Your task to perform on an android device: Show me the alarms in the clock app Image 0: 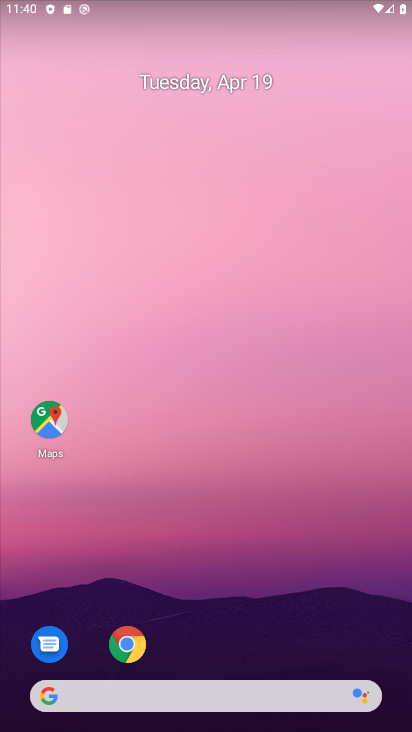
Step 0: drag from (329, 604) to (365, 50)
Your task to perform on an android device: Show me the alarms in the clock app Image 1: 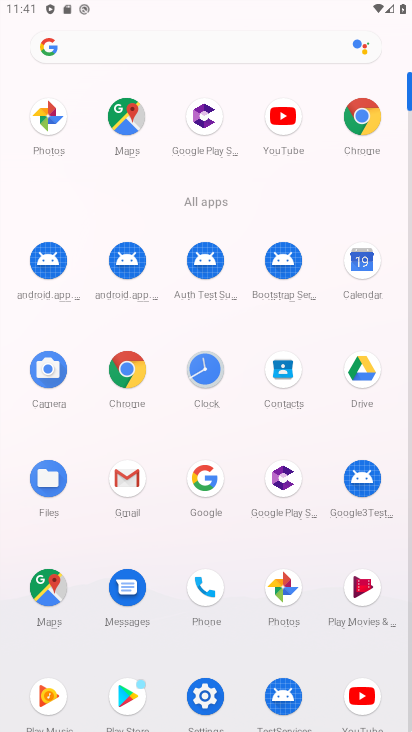
Step 1: click (213, 374)
Your task to perform on an android device: Show me the alarms in the clock app Image 2: 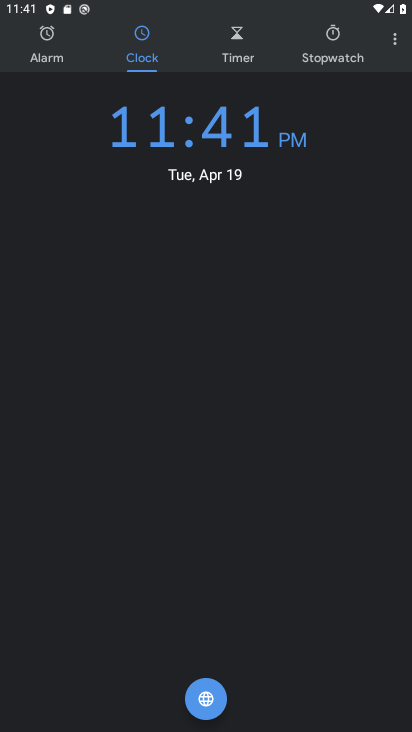
Step 2: click (51, 47)
Your task to perform on an android device: Show me the alarms in the clock app Image 3: 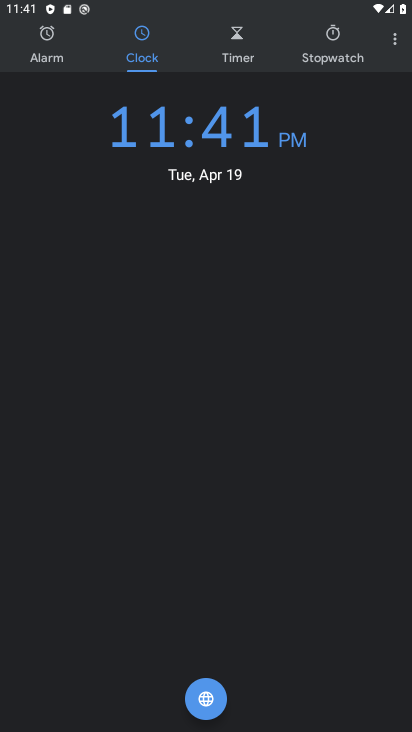
Step 3: click (51, 47)
Your task to perform on an android device: Show me the alarms in the clock app Image 4: 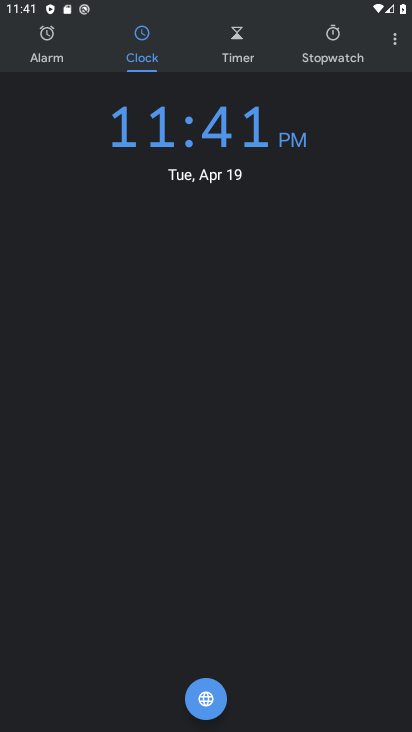
Step 4: click (51, 47)
Your task to perform on an android device: Show me the alarms in the clock app Image 5: 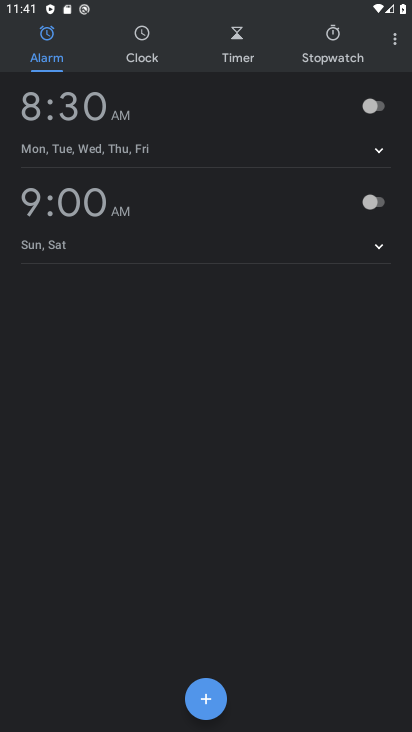
Step 5: task complete